Your task to perform on an android device: Is it going to rain tomorrow? Image 0: 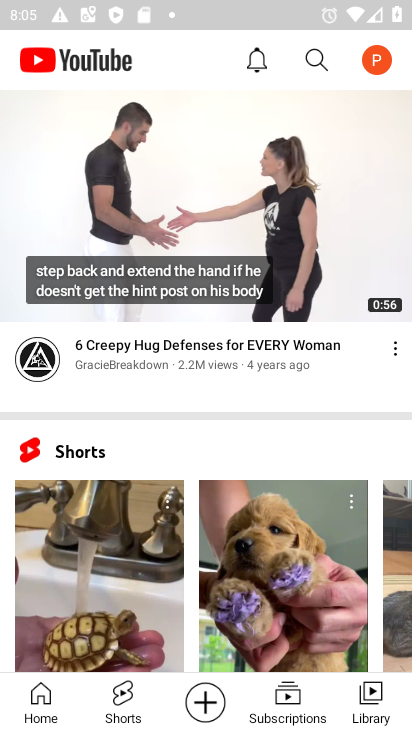
Step 0: press home button
Your task to perform on an android device: Is it going to rain tomorrow? Image 1: 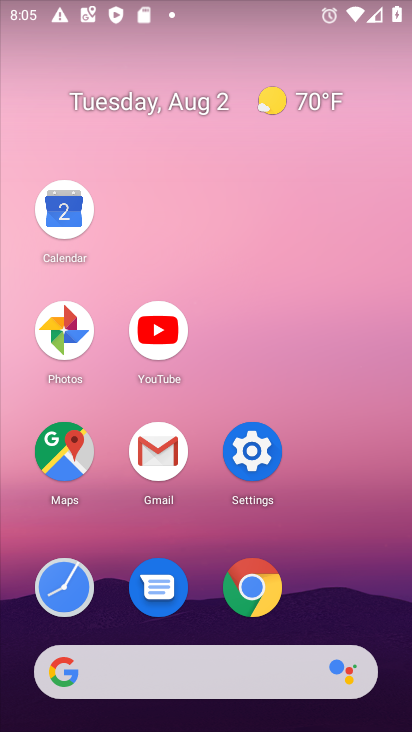
Step 1: click (155, 668)
Your task to perform on an android device: Is it going to rain tomorrow? Image 2: 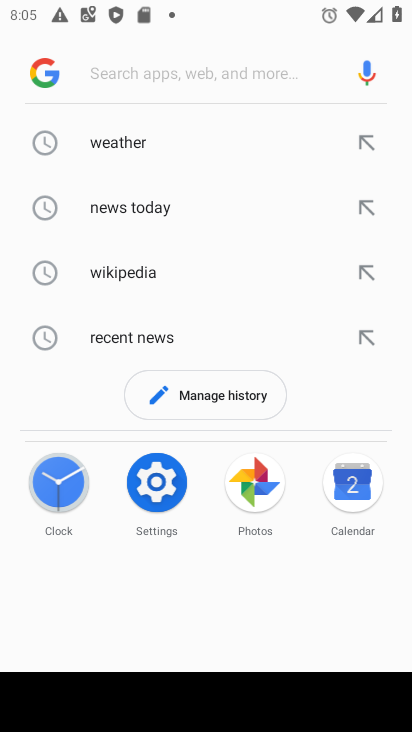
Step 2: click (117, 144)
Your task to perform on an android device: Is it going to rain tomorrow? Image 3: 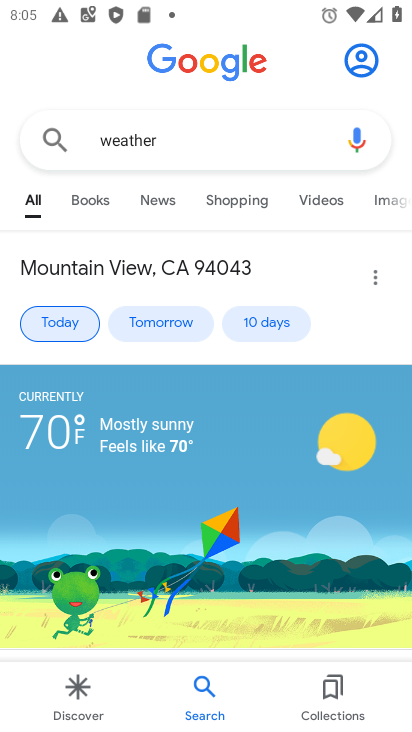
Step 3: click (168, 323)
Your task to perform on an android device: Is it going to rain tomorrow? Image 4: 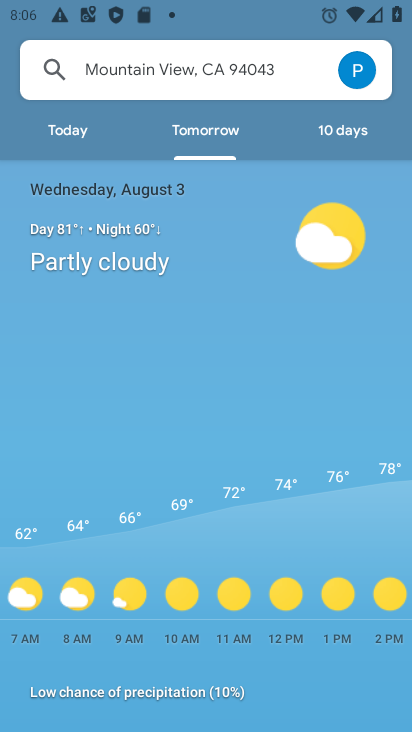
Step 4: task complete